Your task to perform on an android device: change the clock display to digital Image 0: 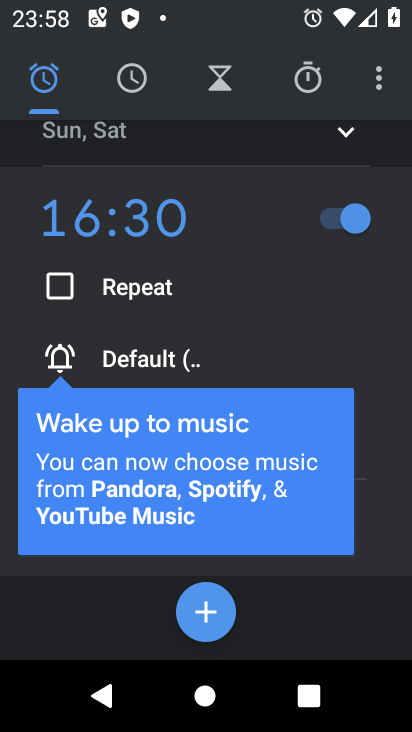
Step 0: click (379, 86)
Your task to perform on an android device: change the clock display to digital Image 1: 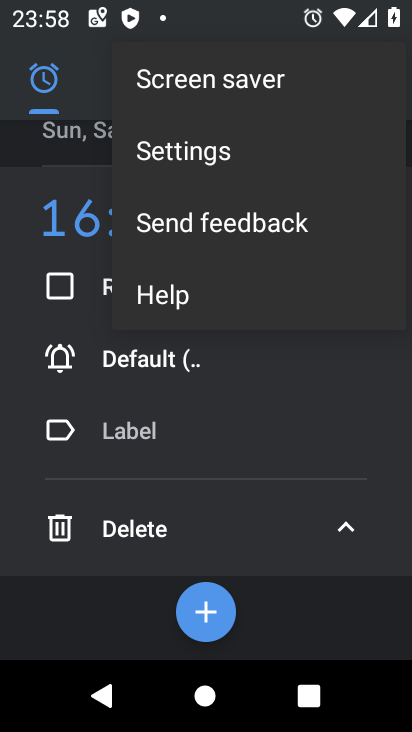
Step 1: click (199, 156)
Your task to perform on an android device: change the clock display to digital Image 2: 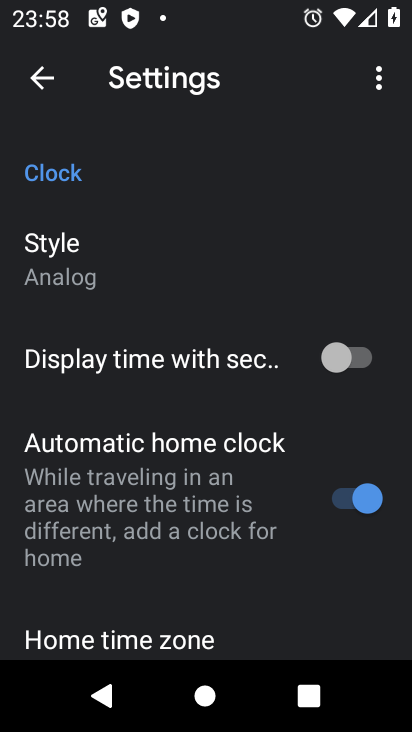
Step 2: click (68, 282)
Your task to perform on an android device: change the clock display to digital Image 3: 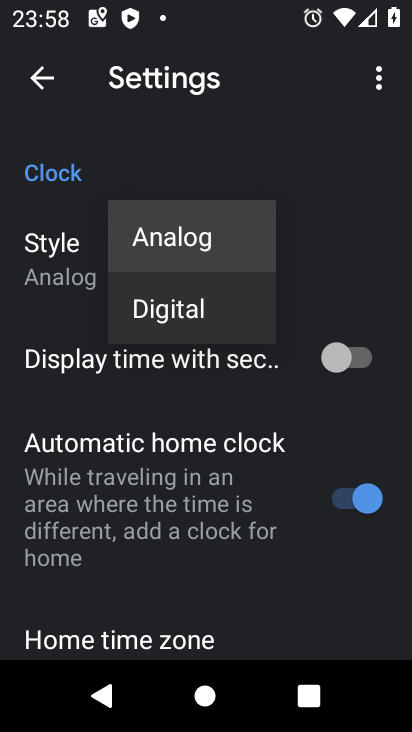
Step 3: click (138, 318)
Your task to perform on an android device: change the clock display to digital Image 4: 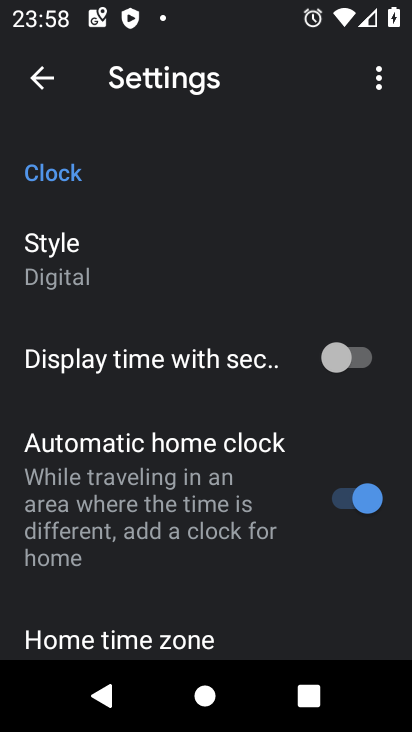
Step 4: task complete